Your task to perform on an android device: Open wifi settings Image 0: 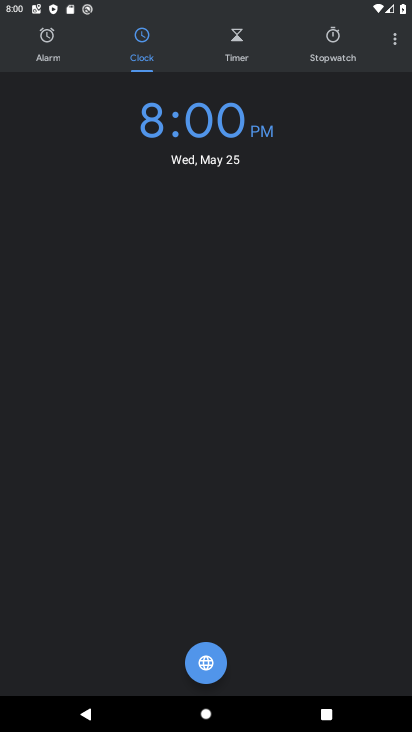
Step 0: press home button
Your task to perform on an android device: Open wifi settings Image 1: 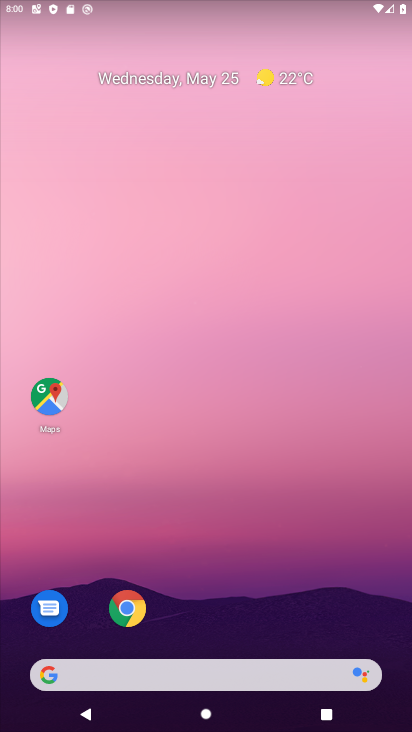
Step 1: drag from (265, 571) to (262, 177)
Your task to perform on an android device: Open wifi settings Image 2: 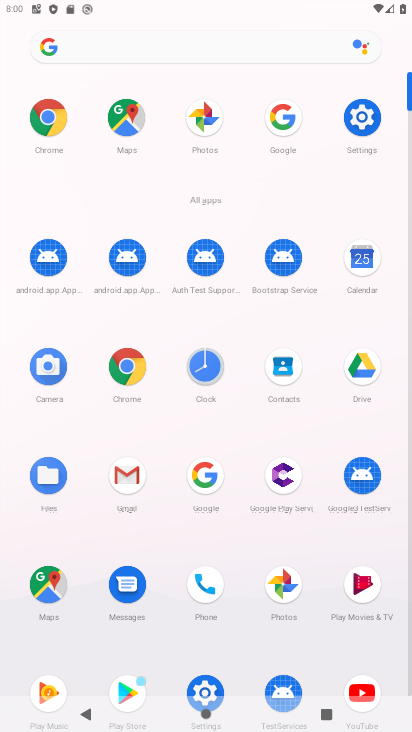
Step 2: click (362, 115)
Your task to perform on an android device: Open wifi settings Image 3: 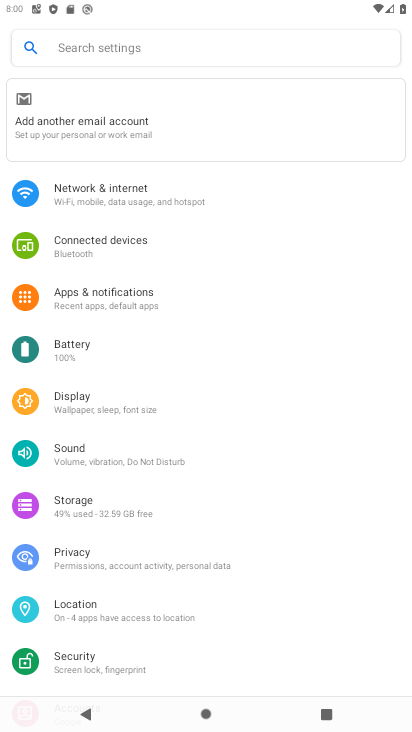
Step 3: click (125, 198)
Your task to perform on an android device: Open wifi settings Image 4: 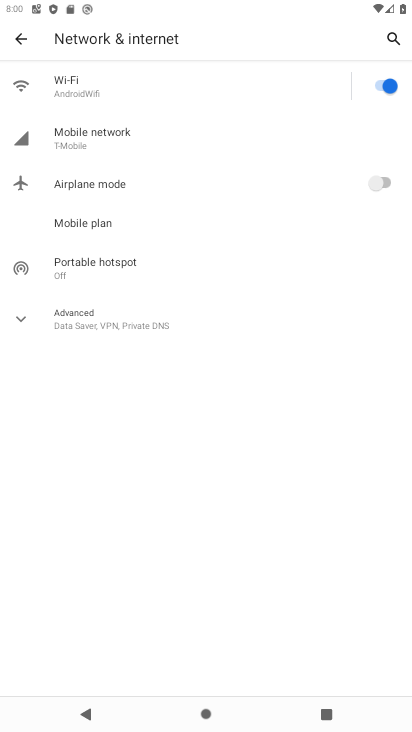
Step 4: click (81, 87)
Your task to perform on an android device: Open wifi settings Image 5: 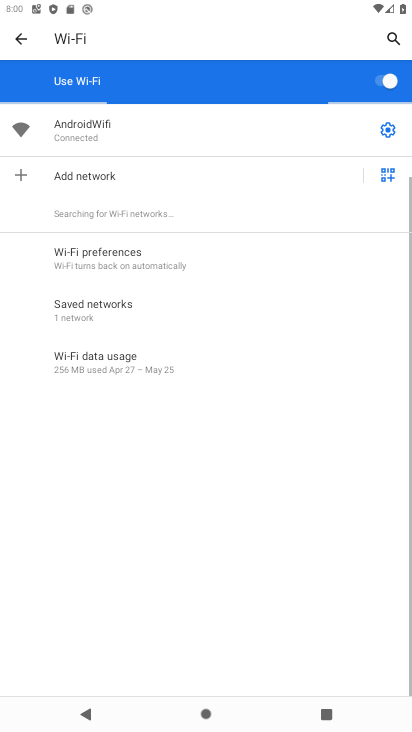
Step 5: click (388, 129)
Your task to perform on an android device: Open wifi settings Image 6: 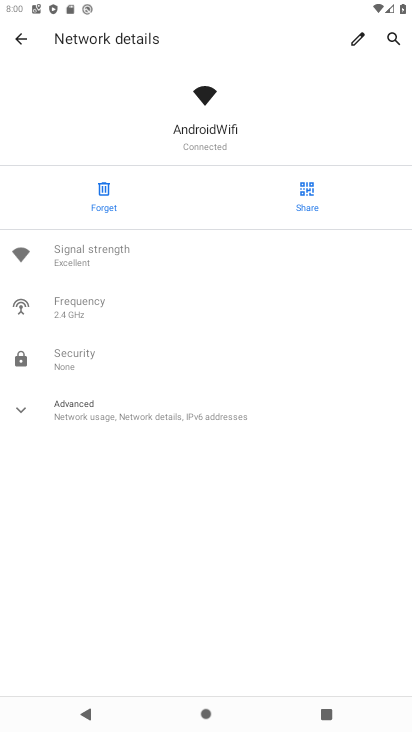
Step 6: task complete